Your task to perform on an android device: turn off data saver in the chrome app Image 0: 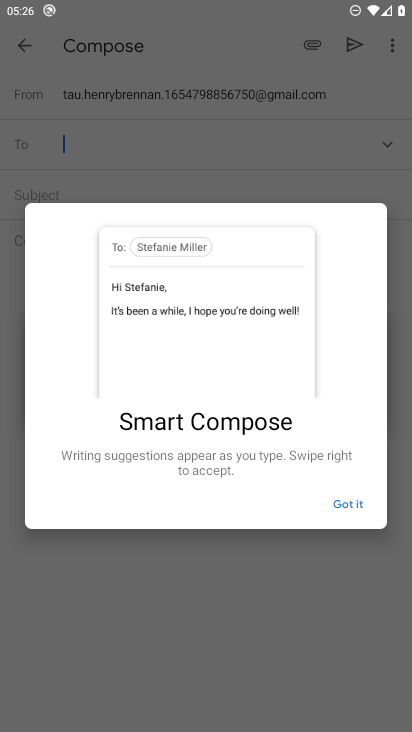
Step 0: press home button
Your task to perform on an android device: turn off data saver in the chrome app Image 1: 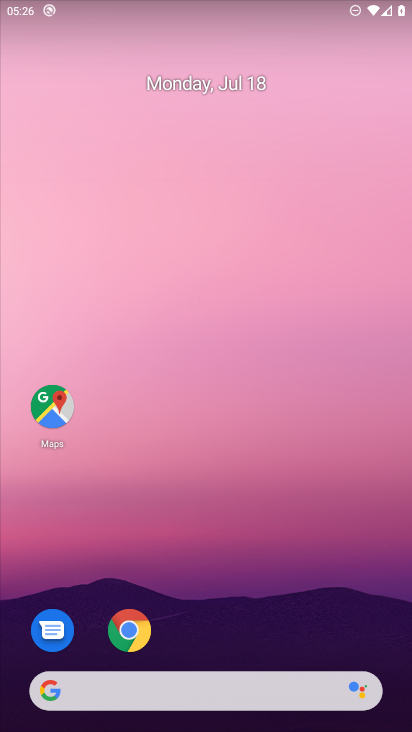
Step 1: click (121, 625)
Your task to perform on an android device: turn off data saver in the chrome app Image 2: 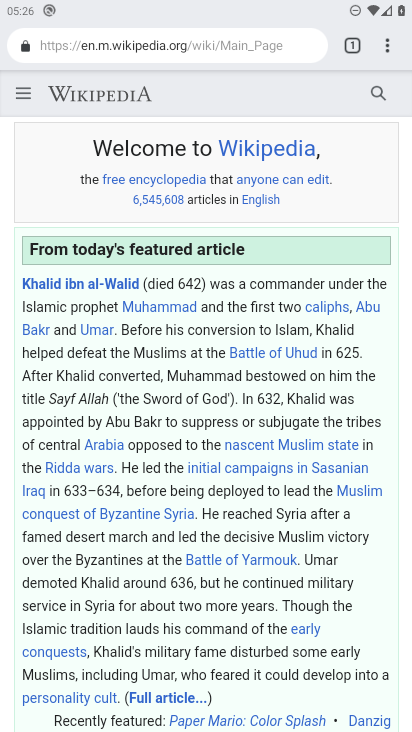
Step 2: click (391, 37)
Your task to perform on an android device: turn off data saver in the chrome app Image 3: 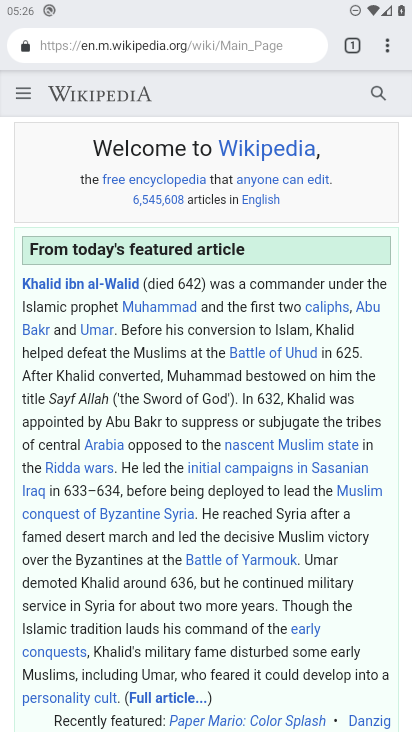
Step 3: click (386, 38)
Your task to perform on an android device: turn off data saver in the chrome app Image 4: 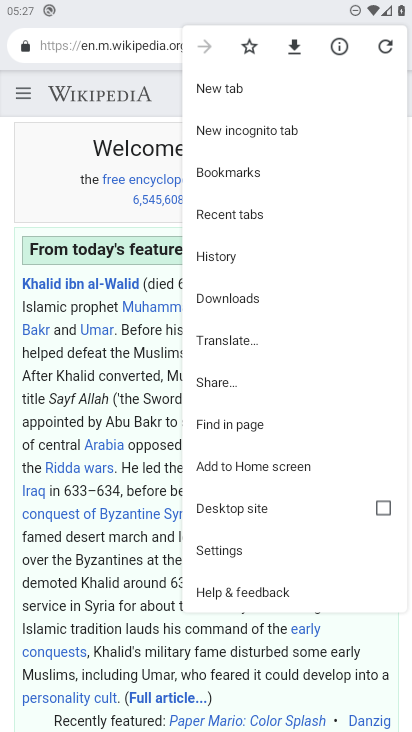
Step 4: click (252, 548)
Your task to perform on an android device: turn off data saver in the chrome app Image 5: 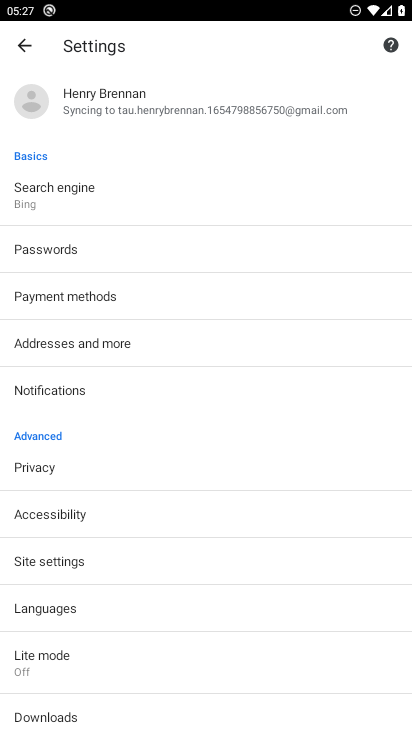
Step 5: click (93, 662)
Your task to perform on an android device: turn off data saver in the chrome app Image 6: 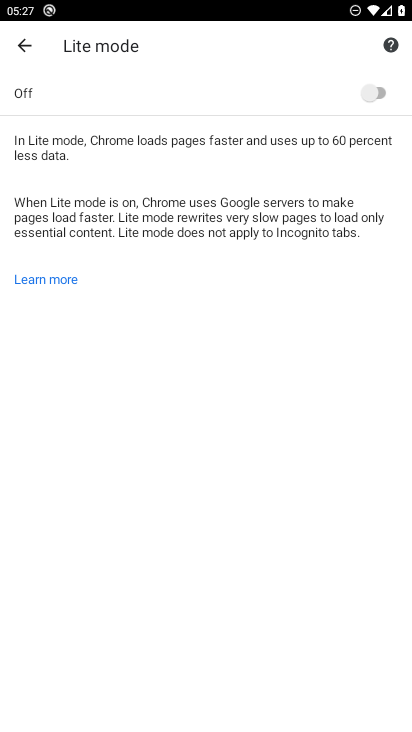
Step 6: task complete